Your task to perform on an android device: When is my next appointment? Image 0: 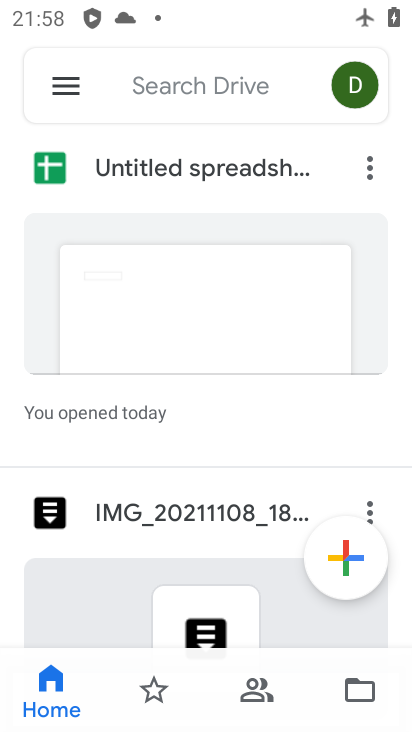
Step 0: press home button
Your task to perform on an android device: When is my next appointment? Image 1: 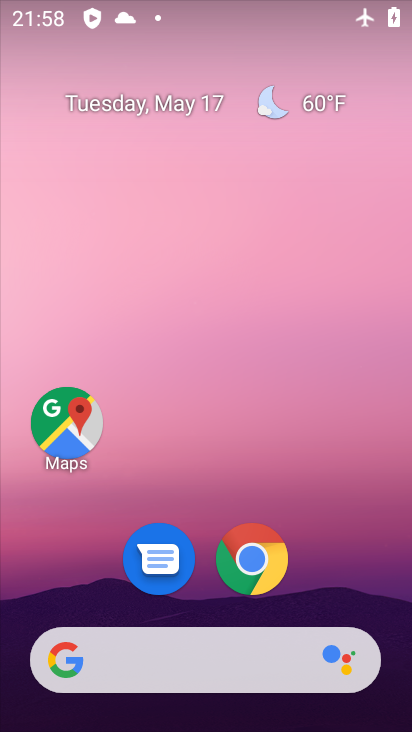
Step 1: drag from (288, 513) to (265, 53)
Your task to perform on an android device: When is my next appointment? Image 2: 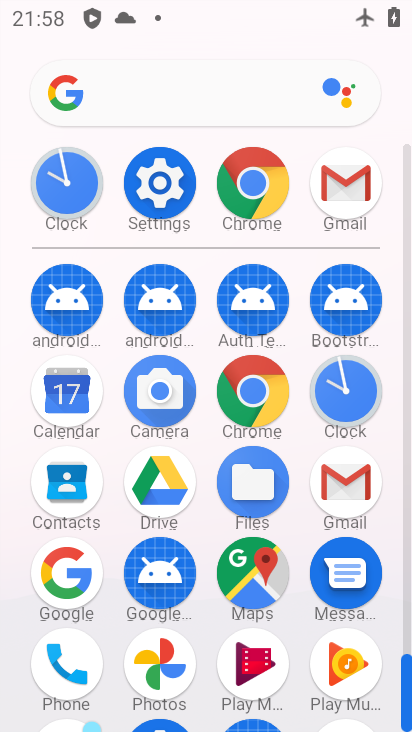
Step 2: click (76, 392)
Your task to perform on an android device: When is my next appointment? Image 3: 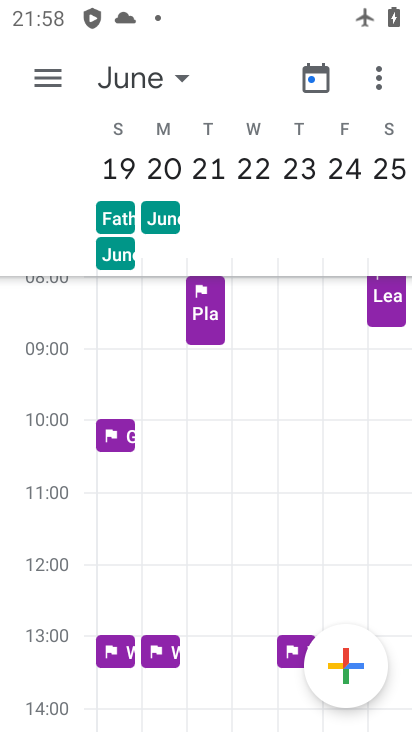
Step 3: click (134, 77)
Your task to perform on an android device: When is my next appointment? Image 4: 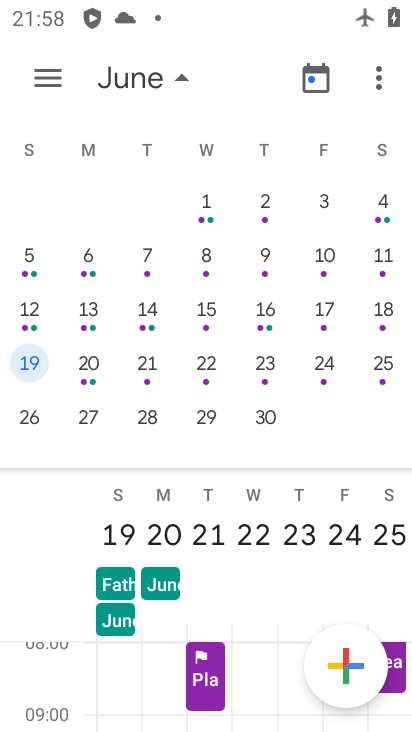
Step 4: drag from (84, 309) to (401, 304)
Your task to perform on an android device: When is my next appointment? Image 5: 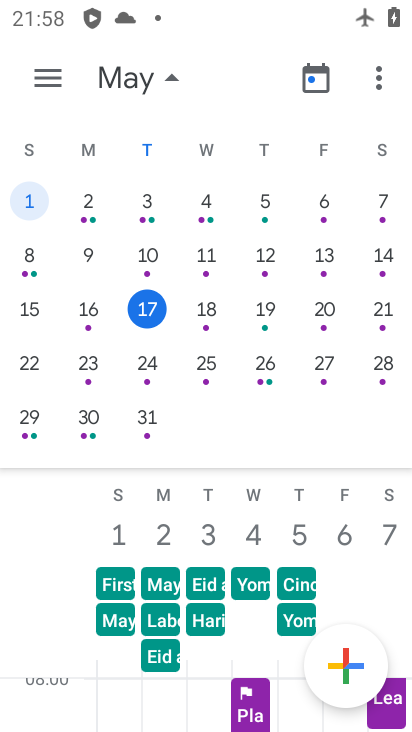
Step 5: click (153, 301)
Your task to perform on an android device: When is my next appointment? Image 6: 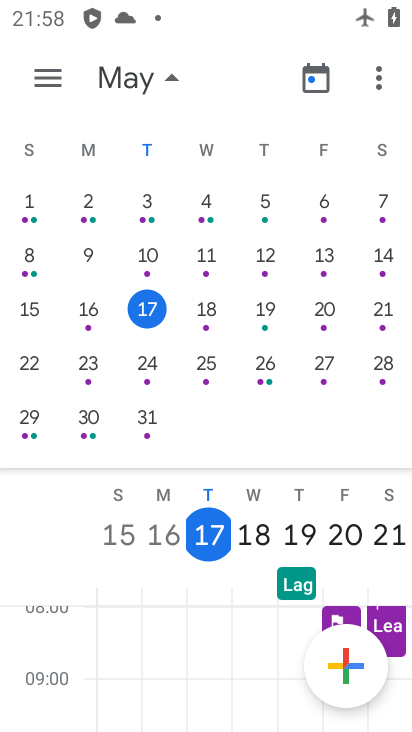
Step 6: task complete